Your task to perform on an android device: toggle data saver in the chrome app Image 0: 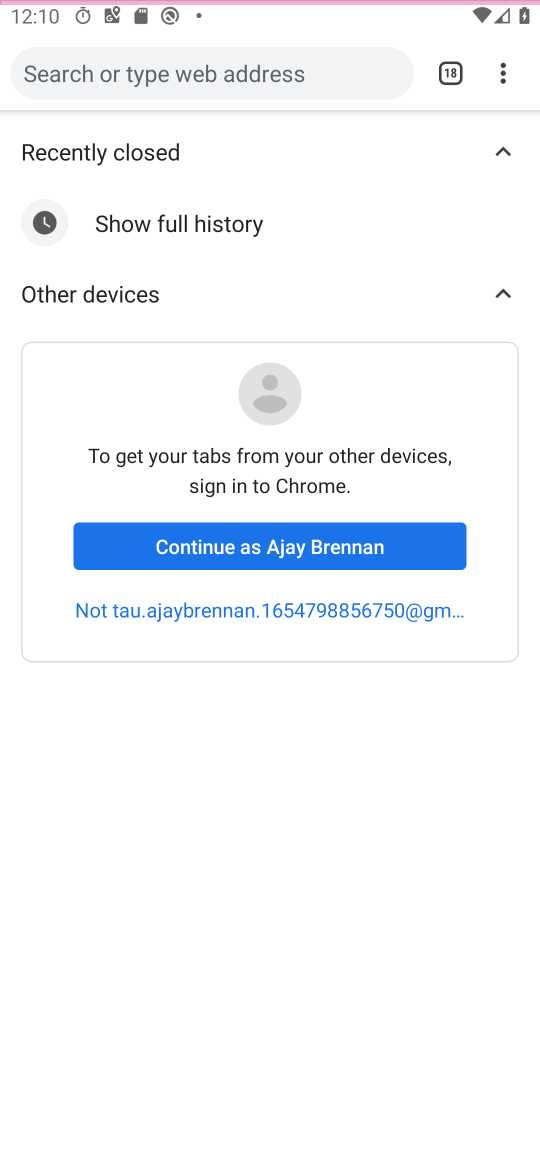
Step 0: press back button
Your task to perform on an android device: toggle data saver in the chrome app Image 1: 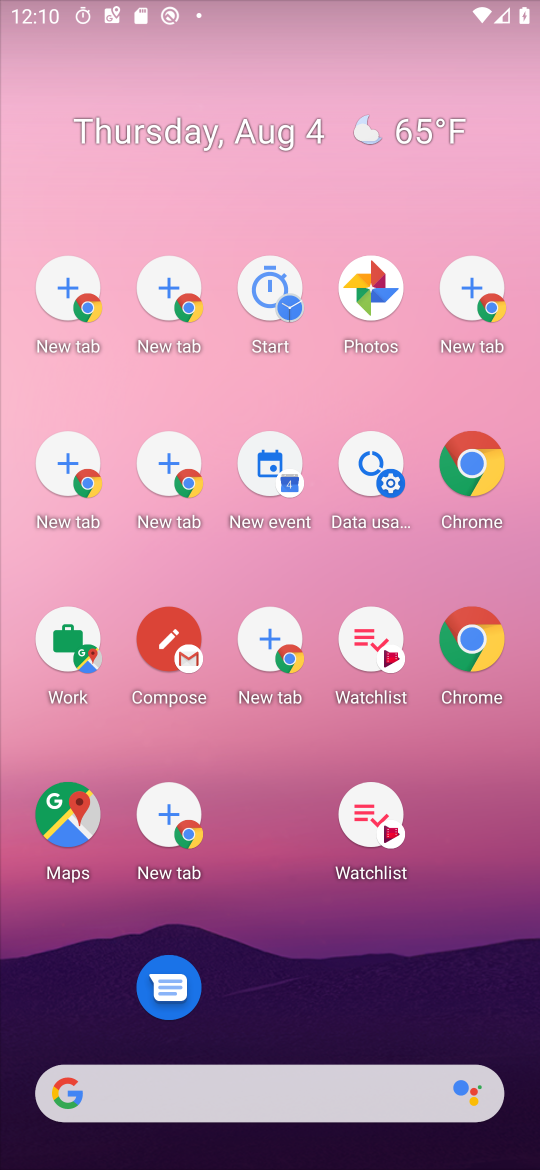
Step 1: press back button
Your task to perform on an android device: toggle data saver in the chrome app Image 2: 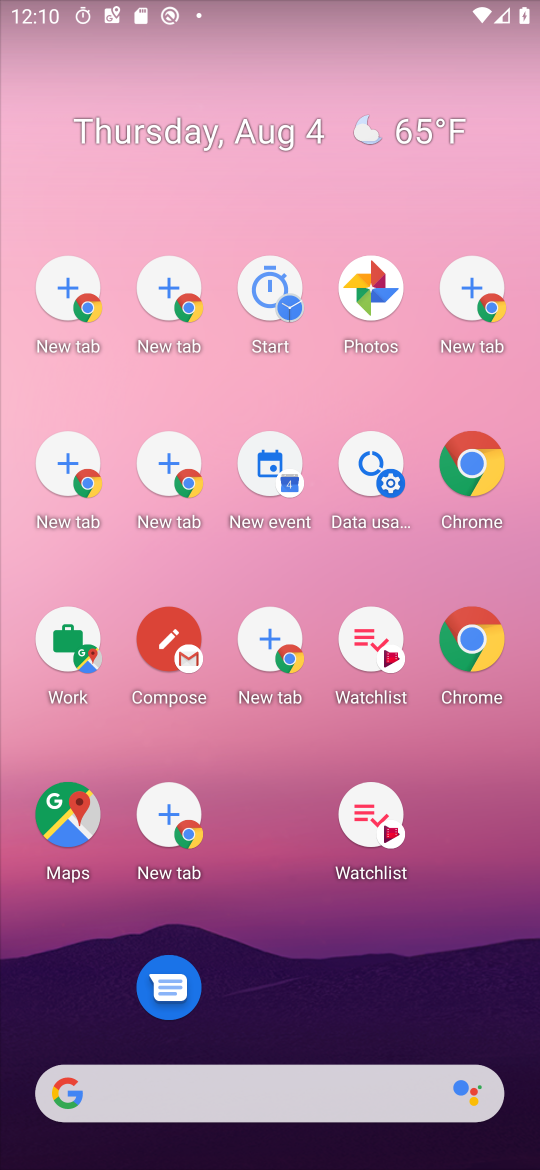
Step 2: click (475, 467)
Your task to perform on an android device: toggle data saver in the chrome app Image 3: 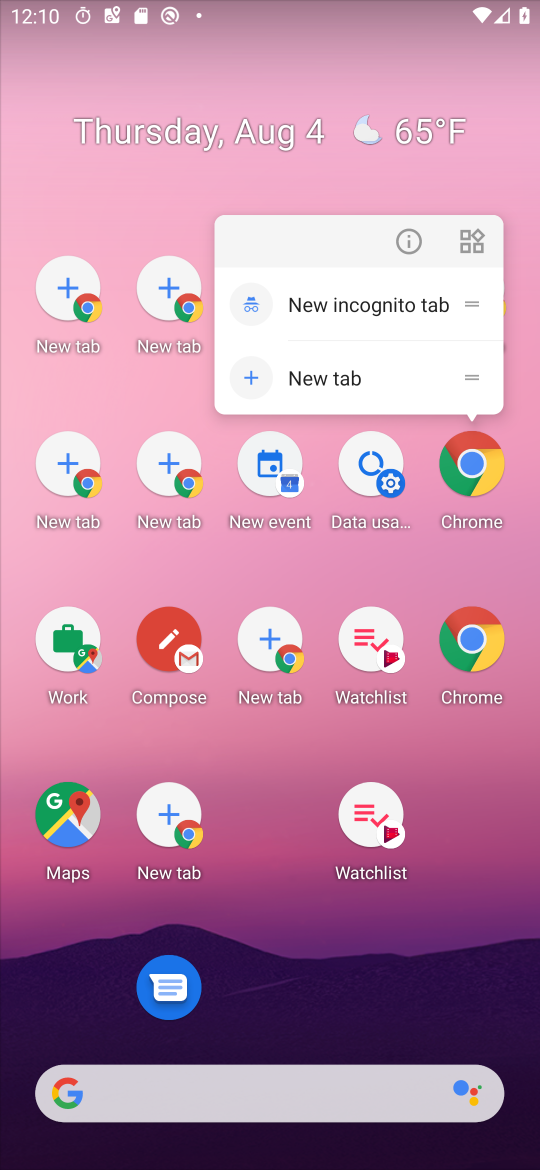
Step 3: click (481, 467)
Your task to perform on an android device: toggle data saver in the chrome app Image 4: 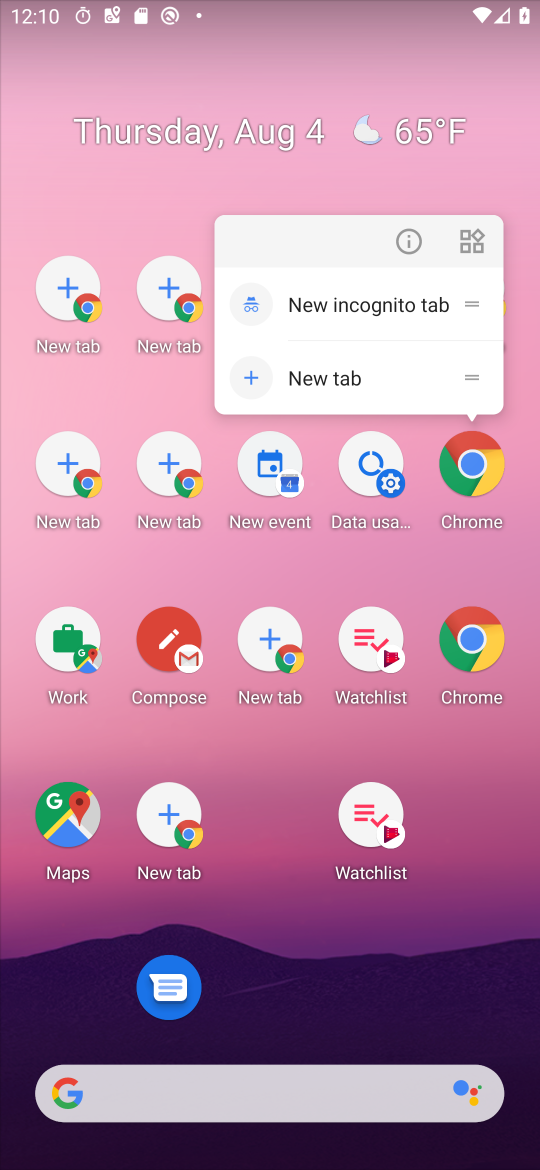
Step 4: click (495, 468)
Your task to perform on an android device: toggle data saver in the chrome app Image 5: 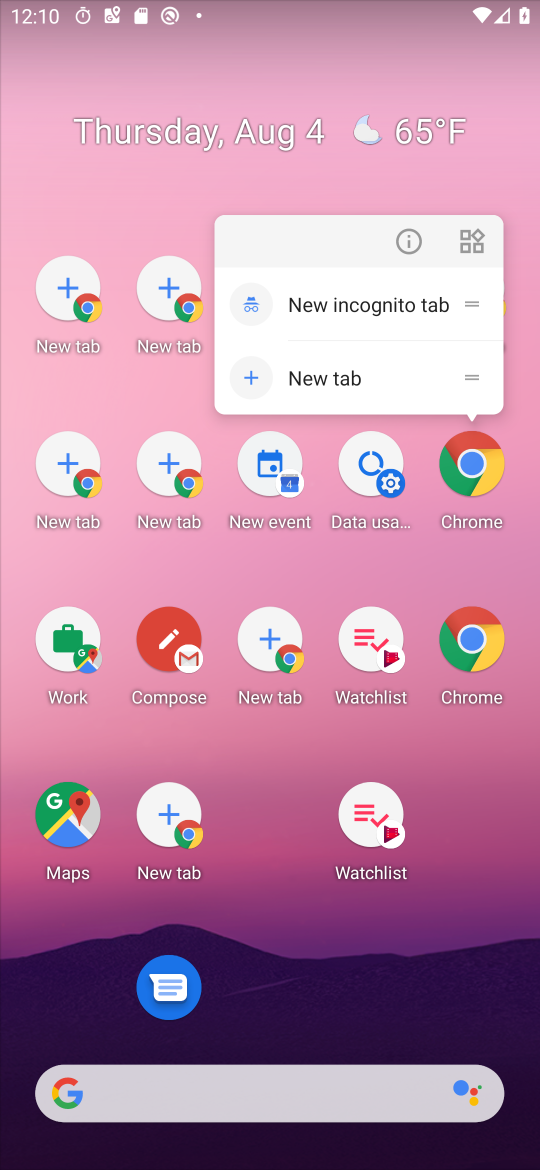
Step 5: click (495, 462)
Your task to perform on an android device: toggle data saver in the chrome app Image 6: 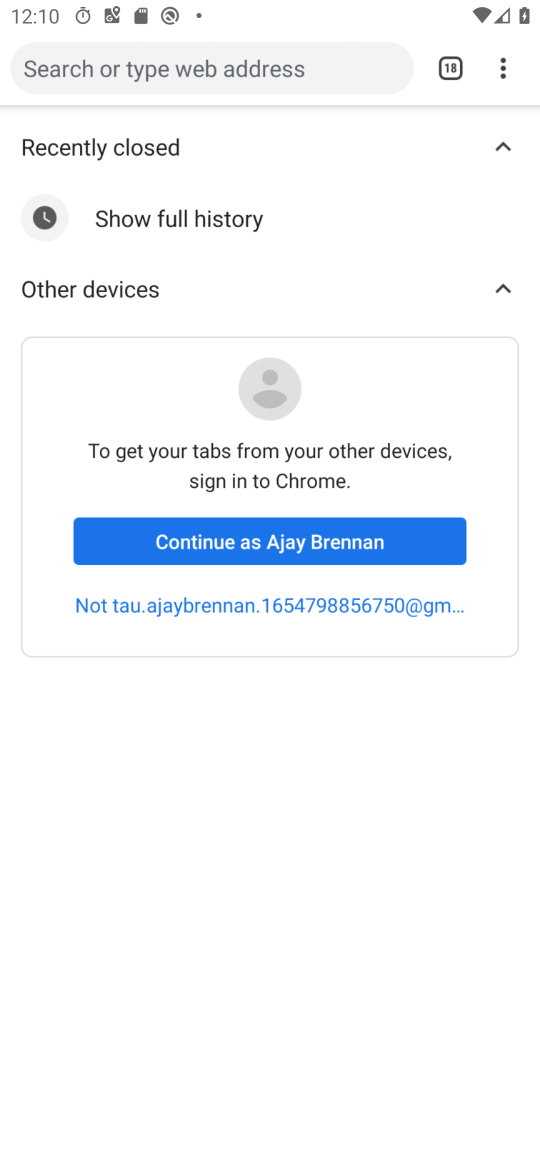
Step 6: click (479, 459)
Your task to perform on an android device: toggle data saver in the chrome app Image 7: 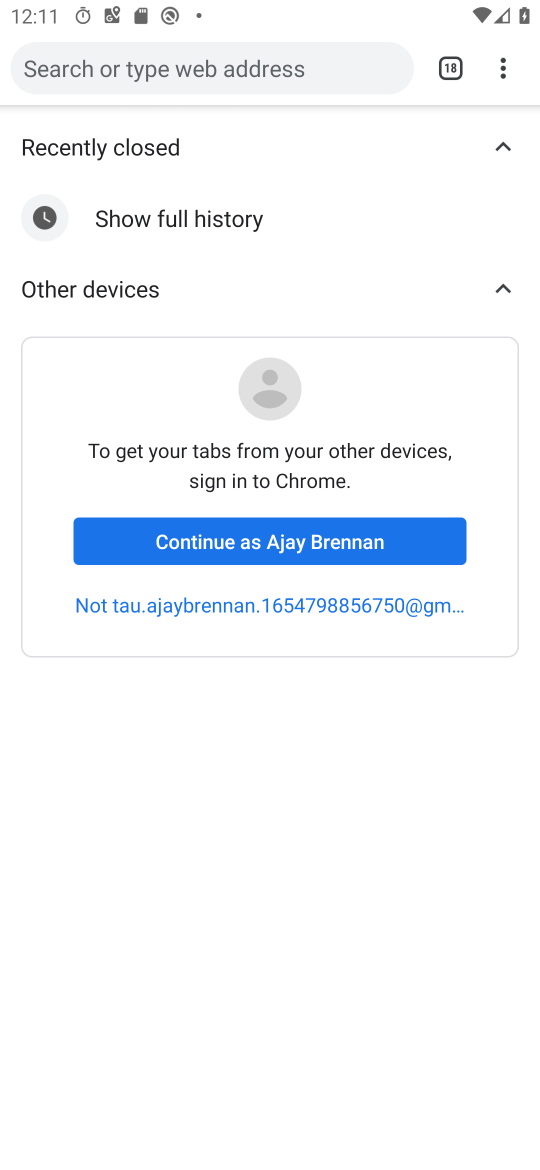
Step 7: drag from (511, 62) to (248, 583)
Your task to perform on an android device: toggle data saver in the chrome app Image 8: 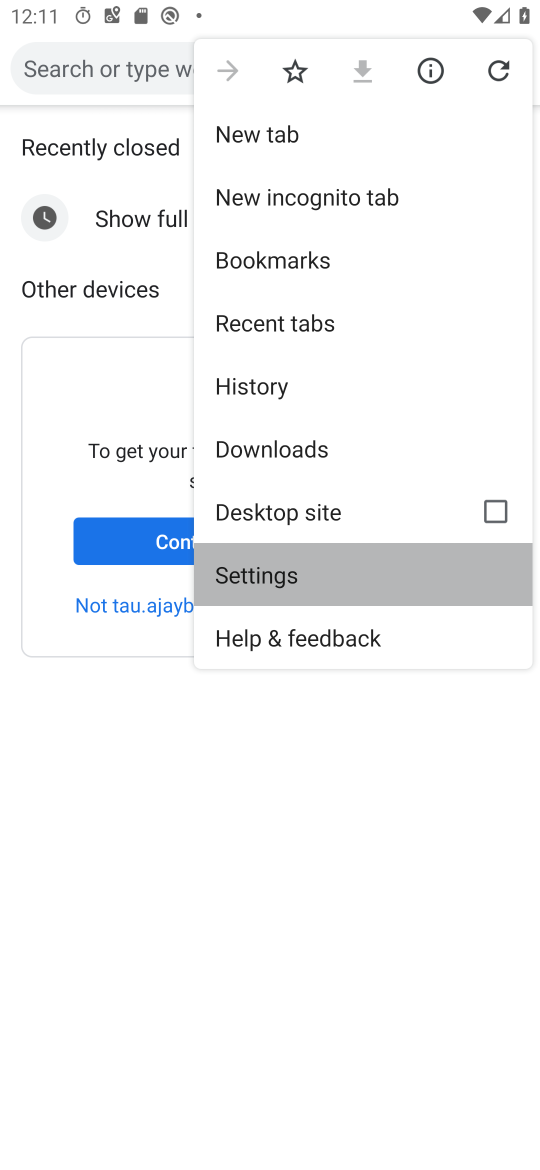
Step 8: click (244, 571)
Your task to perform on an android device: toggle data saver in the chrome app Image 9: 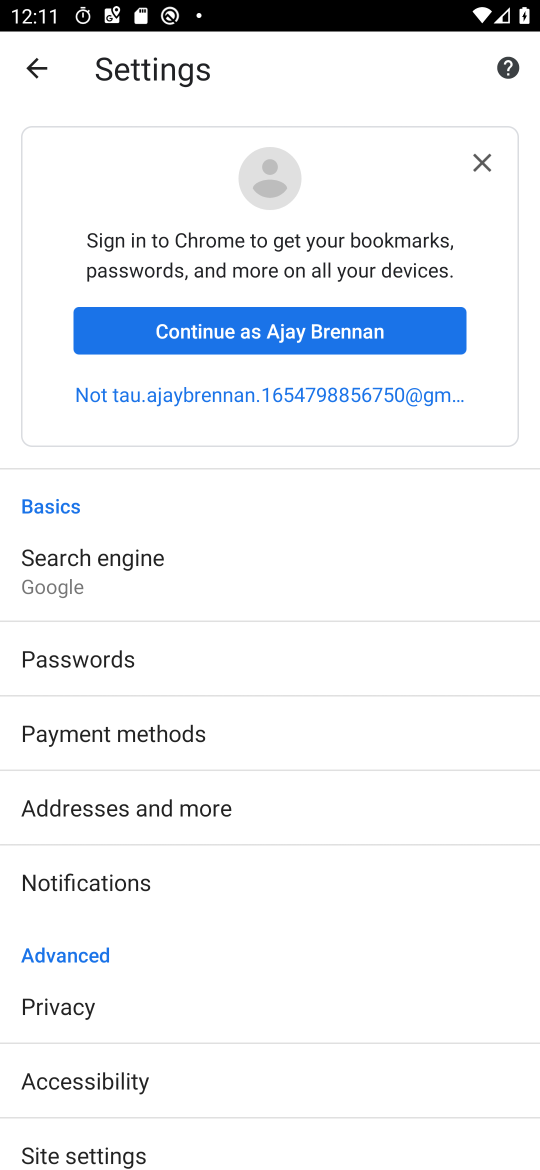
Step 9: drag from (86, 912) to (16, 245)
Your task to perform on an android device: toggle data saver in the chrome app Image 10: 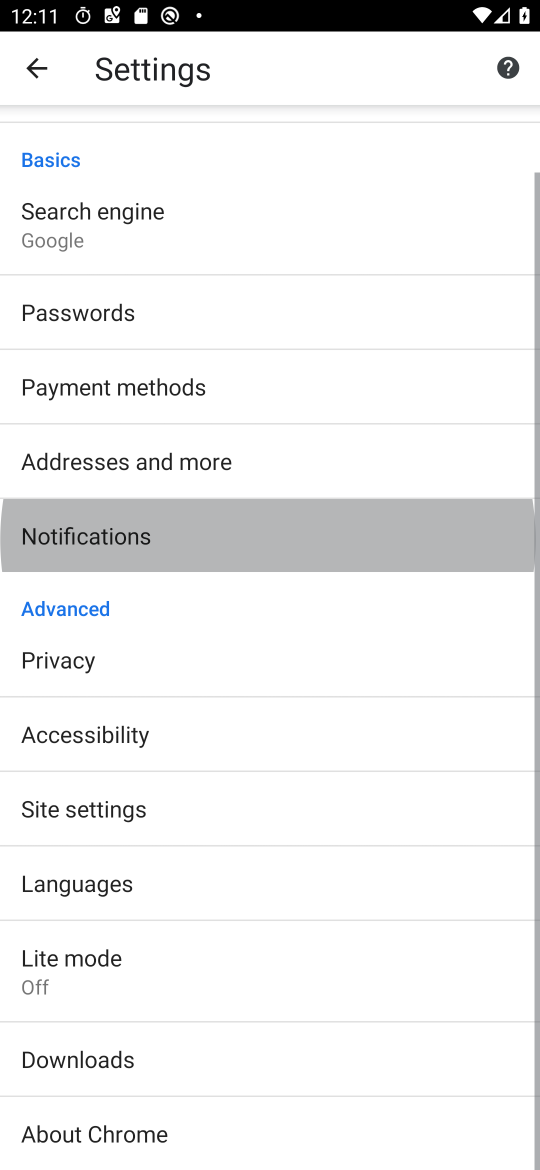
Step 10: drag from (109, 688) to (111, 450)
Your task to perform on an android device: toggle data saver in the chrome app Image 11: 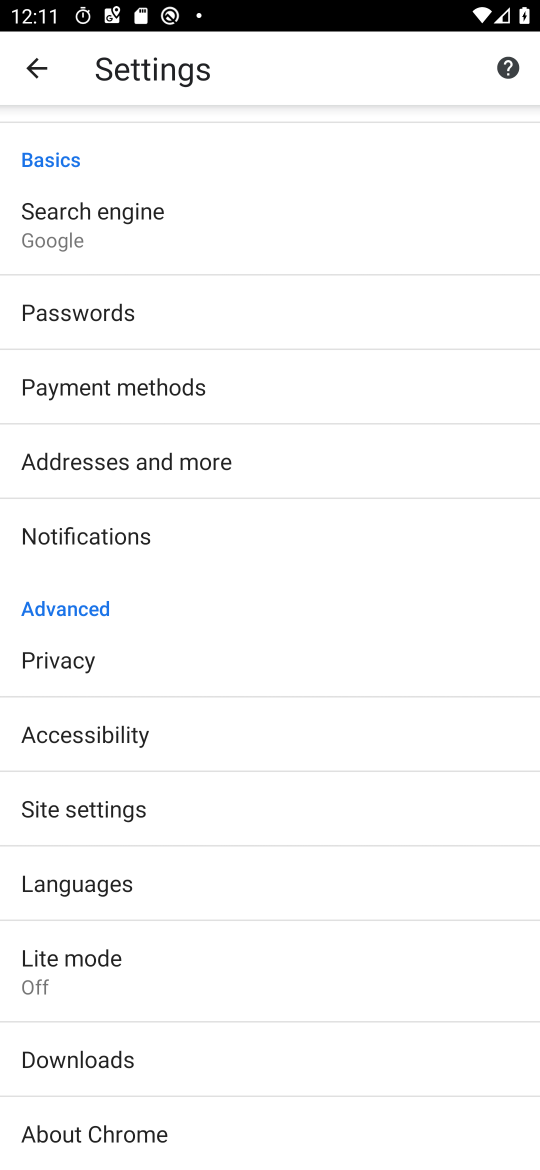
Step 11: click (61, 948)
Your task to perform on an android device: toggle data saver in the chrome app Image 12: 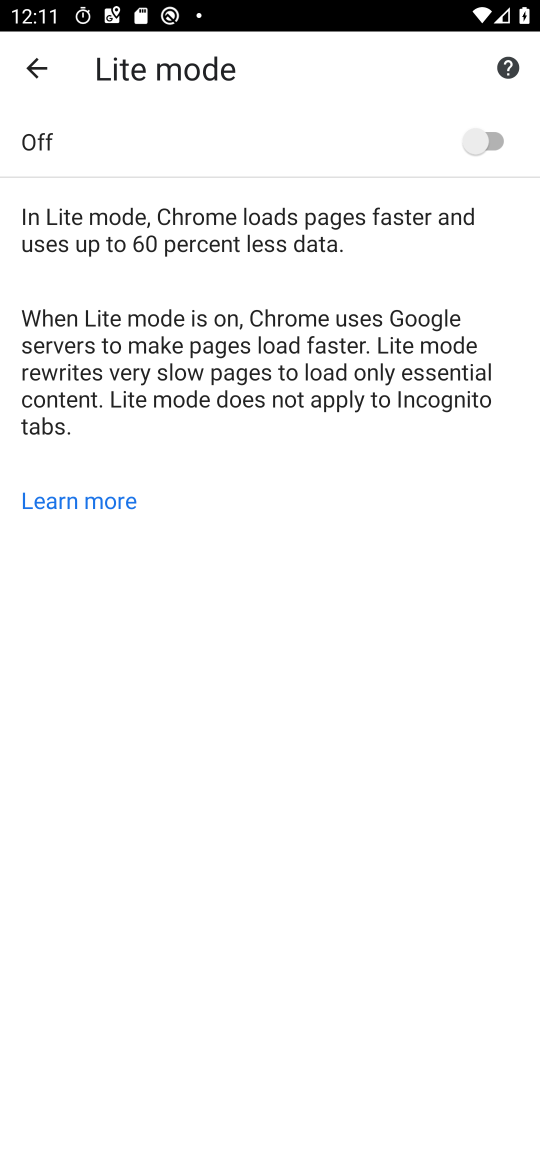
Step 12: click (474, 153)
Your task to perform on an android device: toggle data saver in the chrome app Image 13: 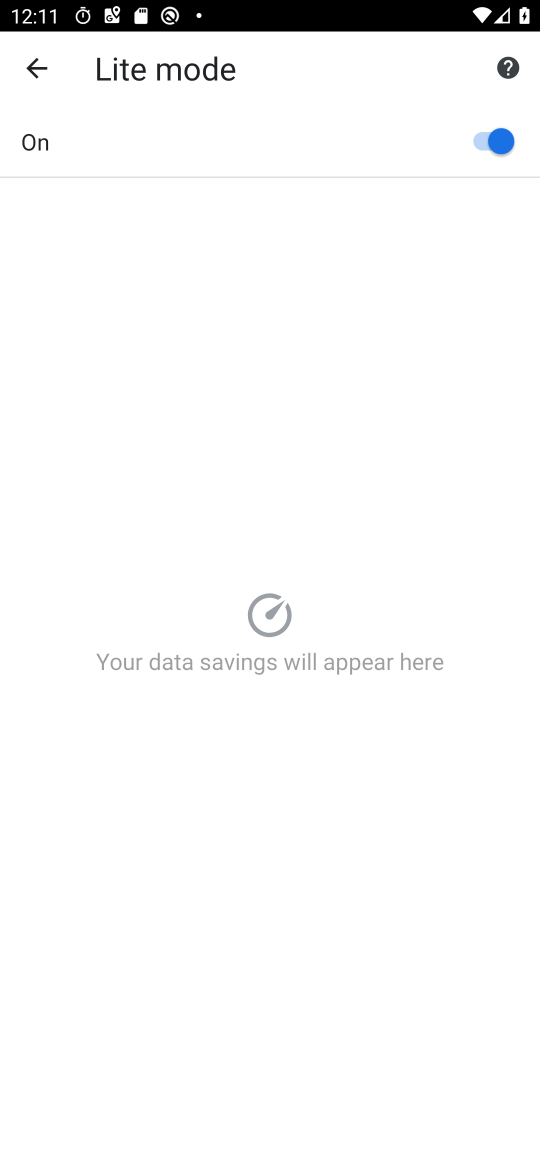
Step 13: task complete